Your task to perform on an android device: What's the weather? Image 0: 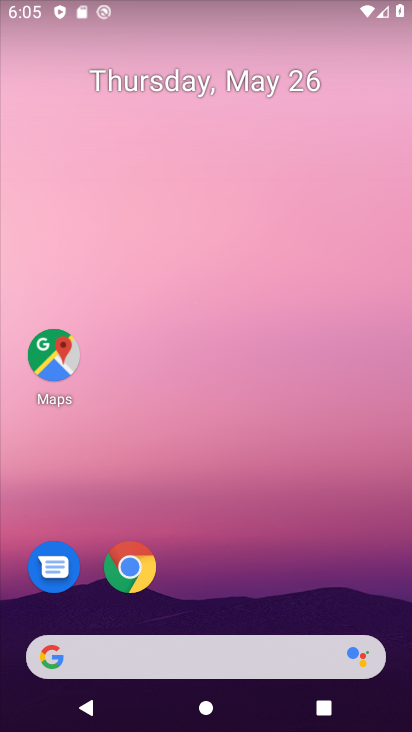
Step 0: drag from (199, 611) to (242, 337)
Your task to perform on an android device: What's the weather? Image 1: 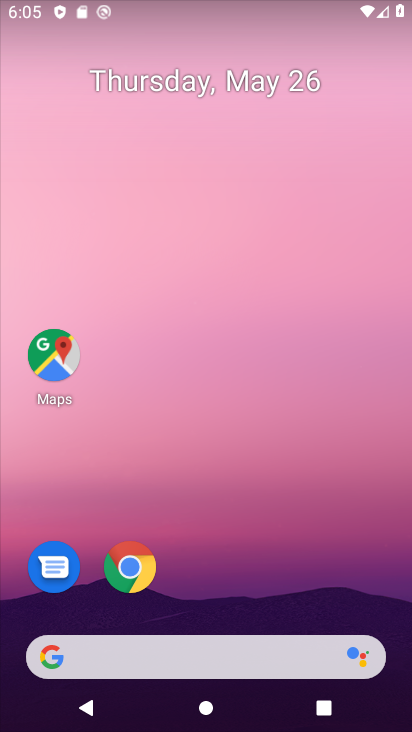
Step 1: drag from (152, 647) to (293, 238)
Your task to perform on an android device: What's the weather? Image 2: 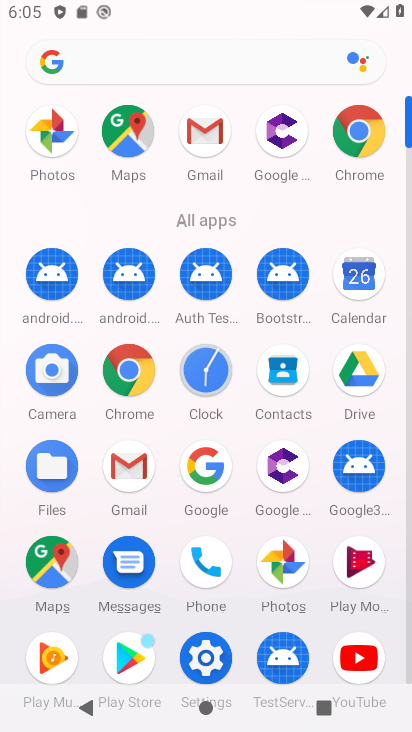
Step 2: click (201, 473)
Your task to perform on an android device: What's the weather? Image 3: 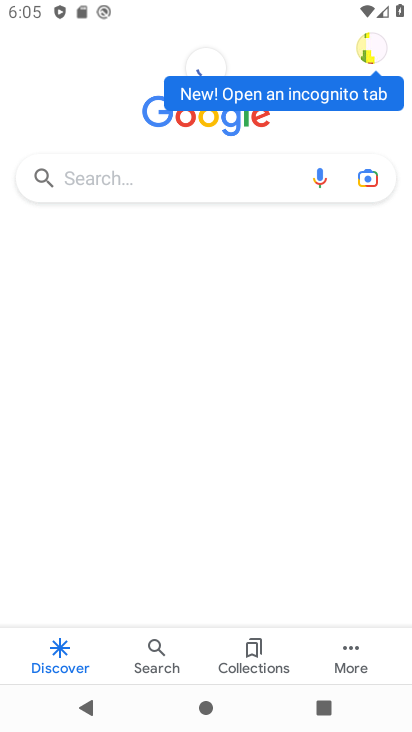
Step 3: drag from (172, 188) to (82, 188)
Your task to perform on an android device: What's the weather? Image 4: 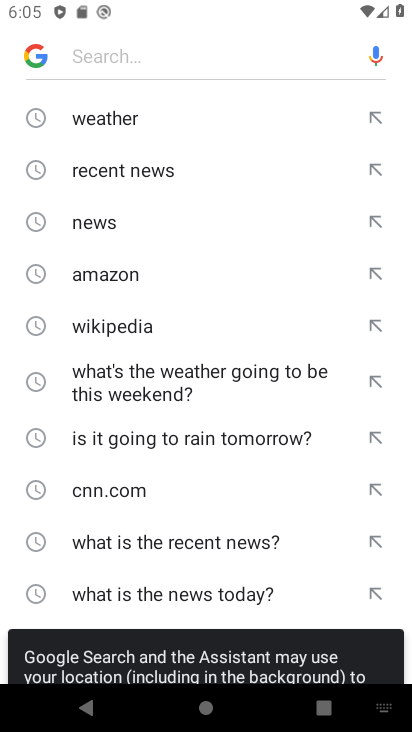
Step 4: click (104, 117)
Your task to perform on an android device: What's the weather? Image 5: 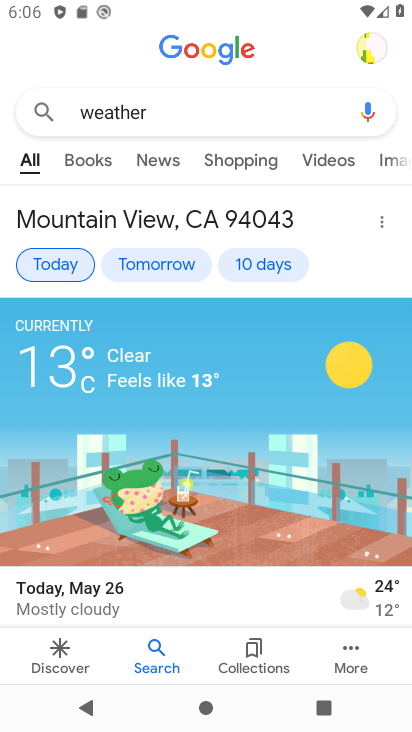
Step 5: task complete